Your task to perform on an android device: Go to location settings Image 0: 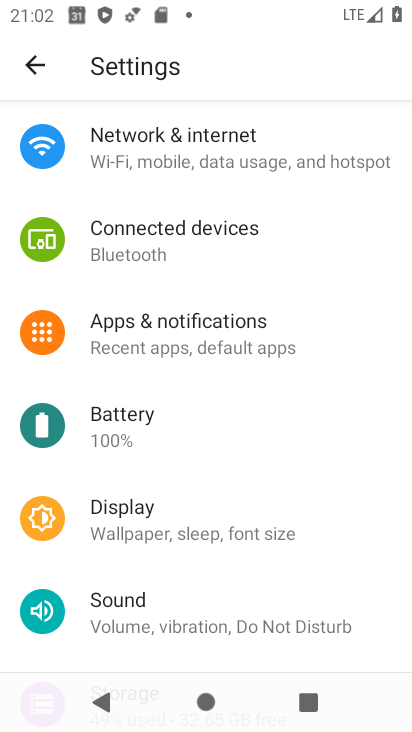
Step 0: drag from (256, 546) to (266, 55)
Your task to perform on an android device: Go to location settings Image 1: 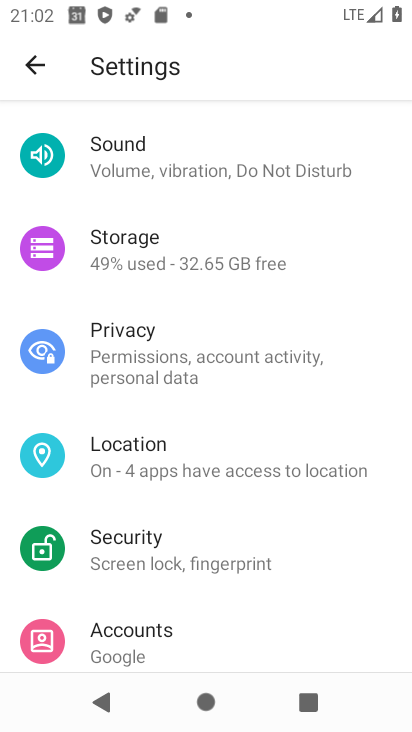
Step 1: click (151, 458)
Your task to perform on an android device: Go to location settings Image 2: 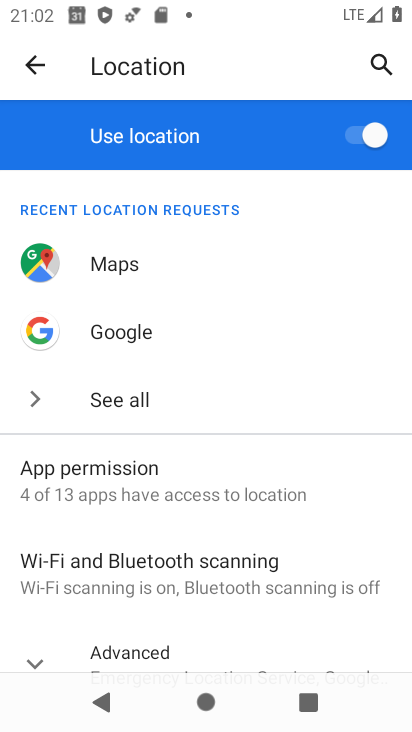
Step 2: task complete